Your task to perform on an android device: Search for Italian restaurants on Maps Image 0: 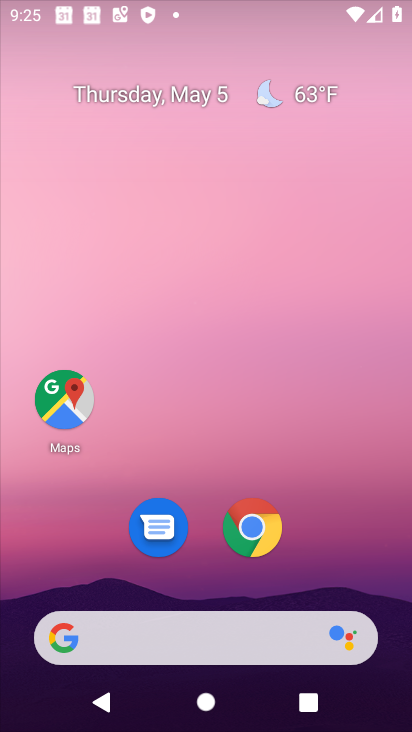
Step 0: click (67, 397)
Your task to perform on an android device: Search for Italian restaurants on Maps Image 1: 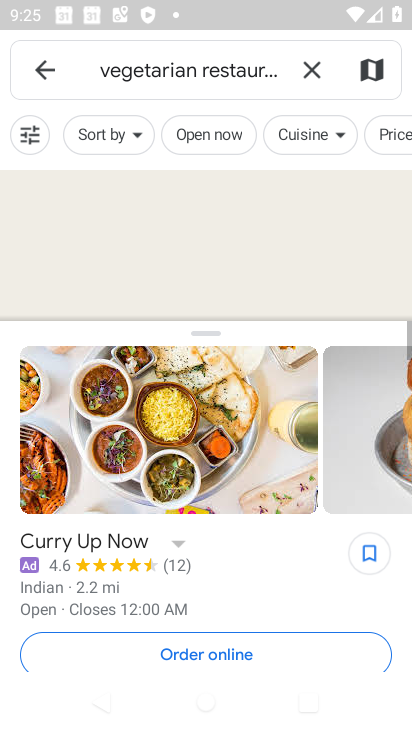
Step 1: click (308, 67)
Your task to perform on an android device: Search for Italian restaurants on Maps Image 2: 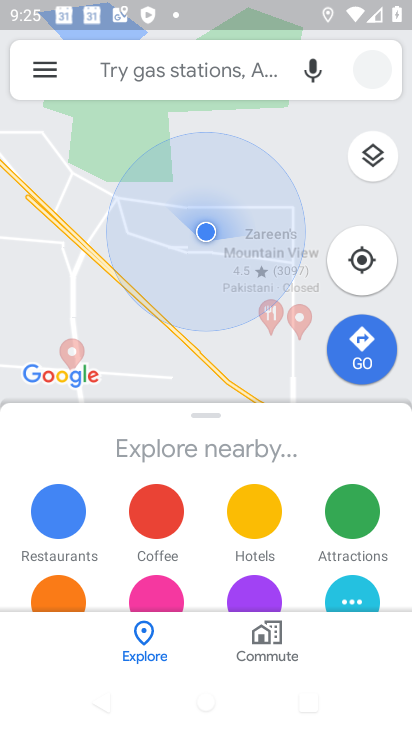
Step 2: click (162, 63)
Your task to perform on an android device: Search for Italian restaurants on Maps Image 3: 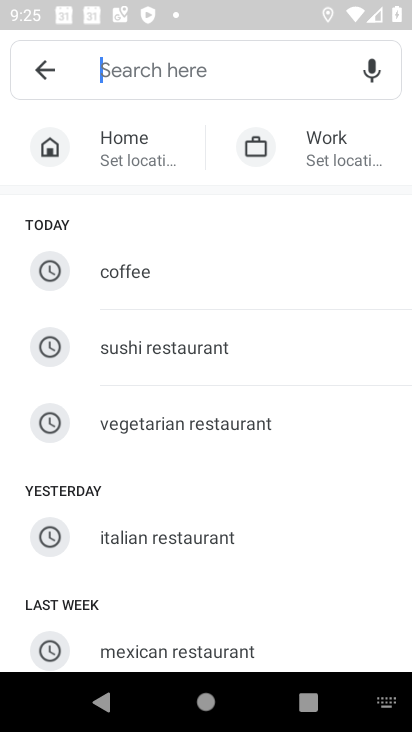
Step 3: click (181, 546)
Your task to perform on an android device: Search for Italian restaurants on Maps Image 4: 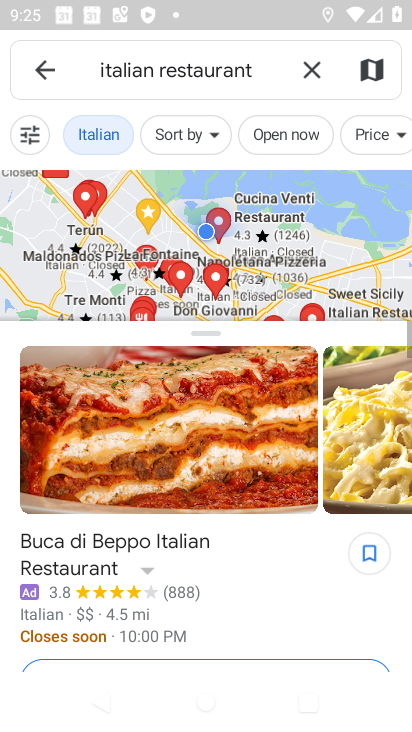
Step 4: task complete